Your task to perform on an android device: Open accessibility settings Image 0: 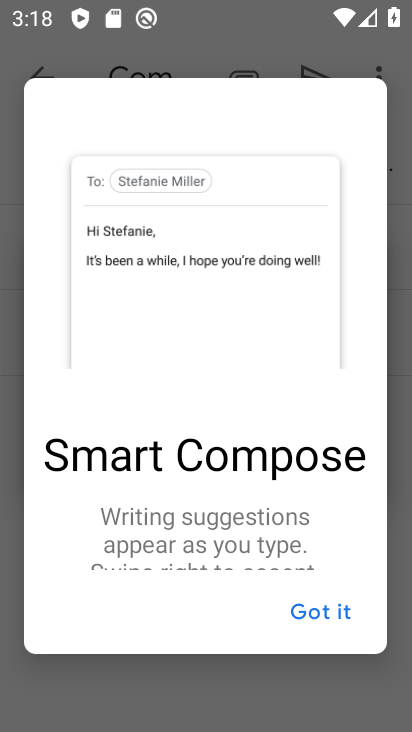
Step 0: press home button
Your task to perform on an android device: Open accessibility settings Image 1: 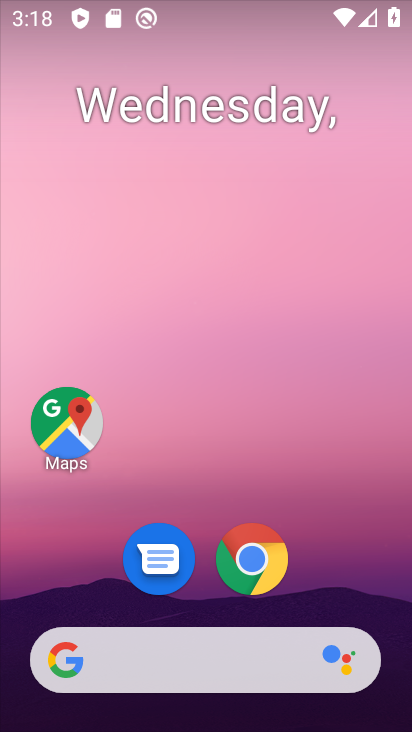
Step 1: drag from (75, 617) to (242, 79)
Your task to perform on an android device: Open accessibility settings Image 2: 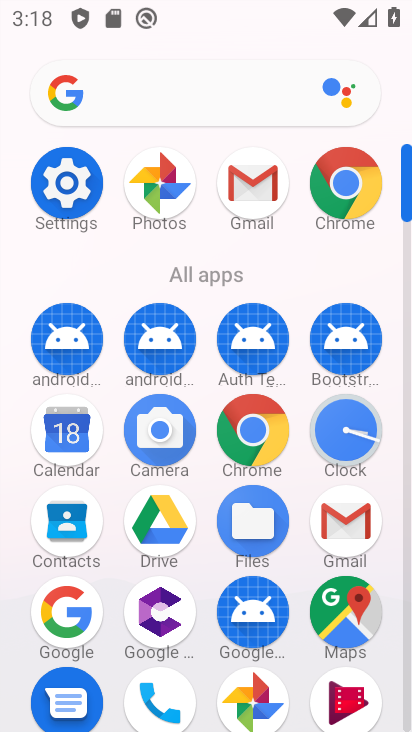
Step 2: drag from (103, 651) to (174, 427)
Your task to perform on an android device: Open accessibility settings Image 3: 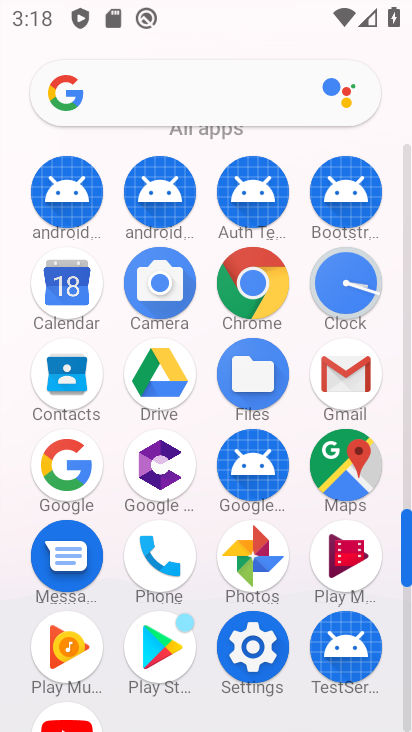
Step 3: click (252, 649)
Your task to perform on an android device: Open accessibility settings Image 4: 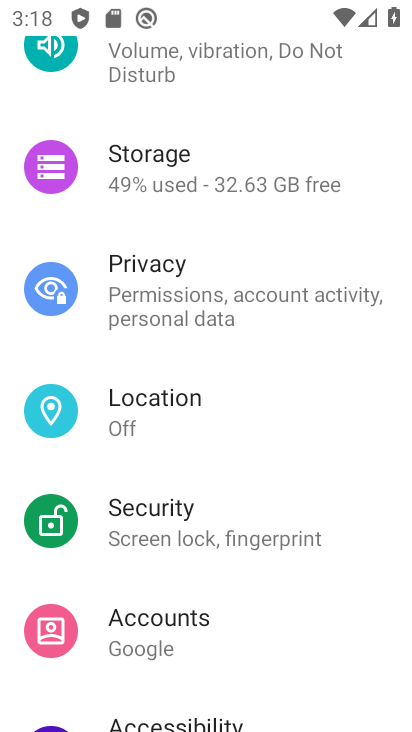
Step 4: drag from (216, 625) to (396, 157)
Your task to perform on an android device: Open accessibility settings Image 5: 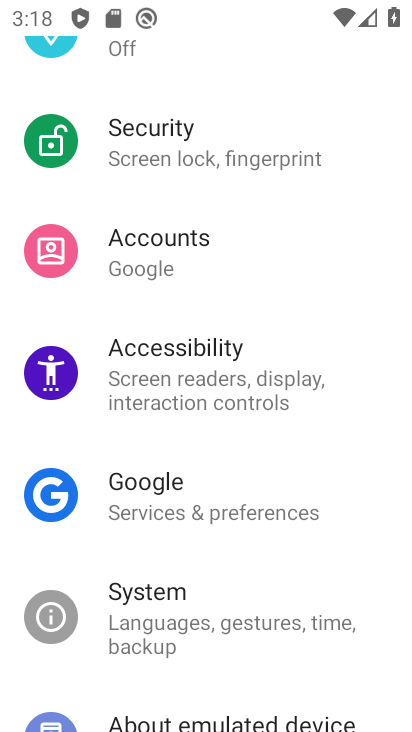
Step 5: click (207, 364)
Your task to perform on an android device: Open accessibility settings Image 6: 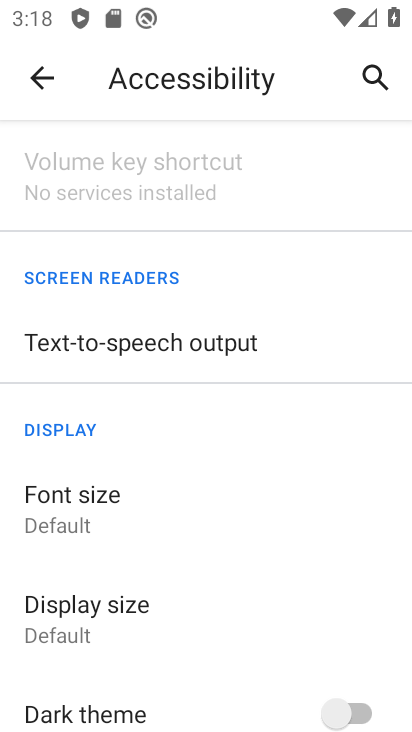
Step 6: task complete